Your task to perform on an android device: Open sound settings Image 0: 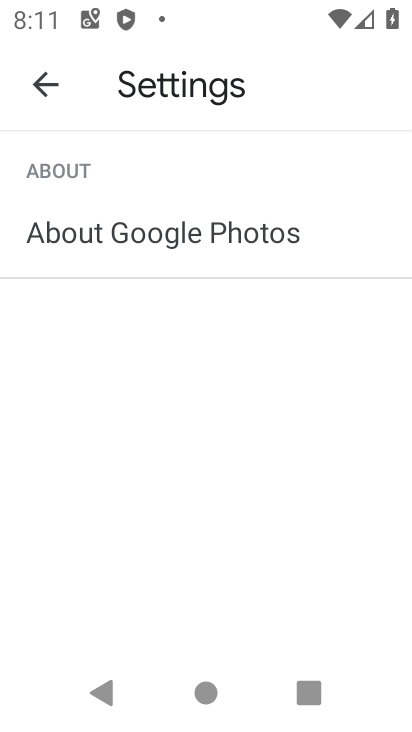
Step 0: press home button
Your task to perform on an android device: Open sound settings Image 1: 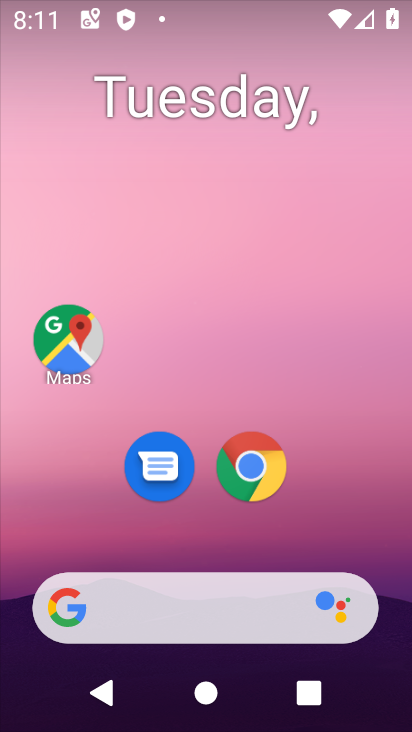
Step 1: drag from (354, 513) to (315, 106)
Your task to perform on an android device: Open sound settings Image 2: 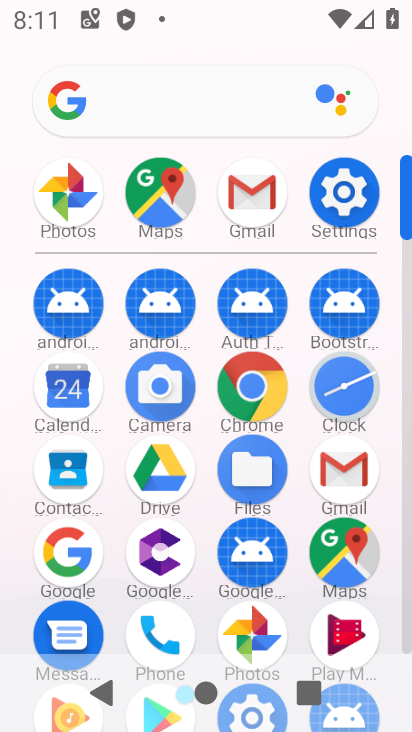
Step 2: click (316, 205)
Your task to perform on an android device: Open sound settings Image 3: 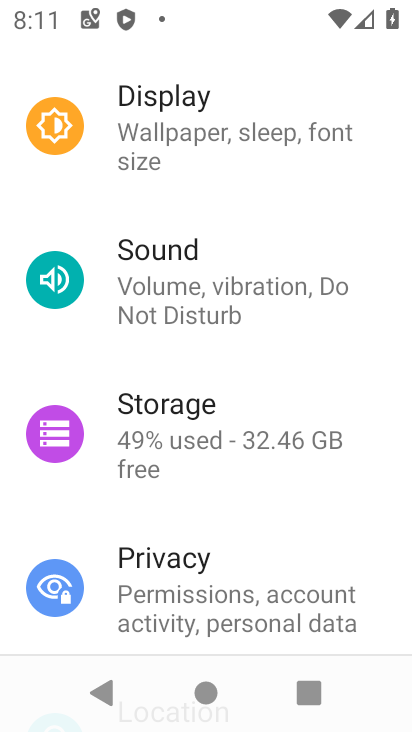
Step 3: click (237, 304)
Your task to perform on an android device: Open sound settings Image 4: 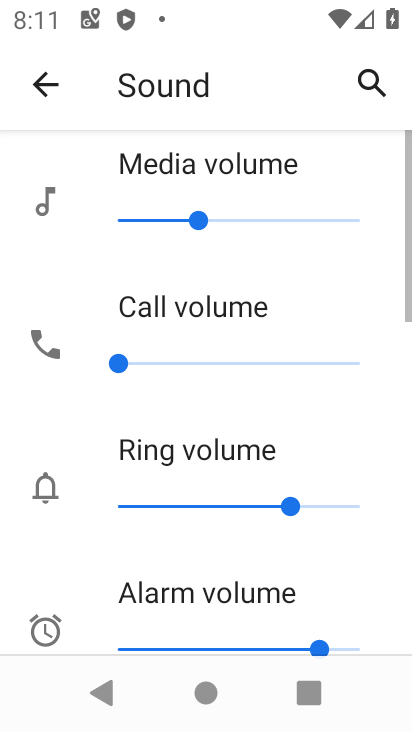
Step 4: task complete